Your task to perform on an android device: see creations saved in the google photos Image 0: 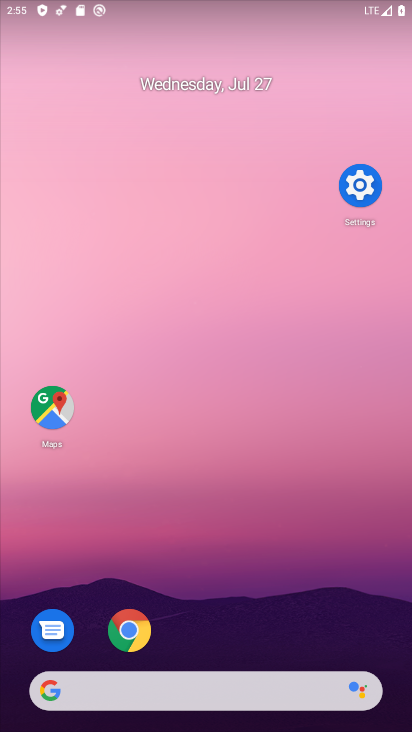
Step 0: drag from (227, 647) to (214, 235)
Your task to perform on an android device: see creations saved in the google photos Image 1: 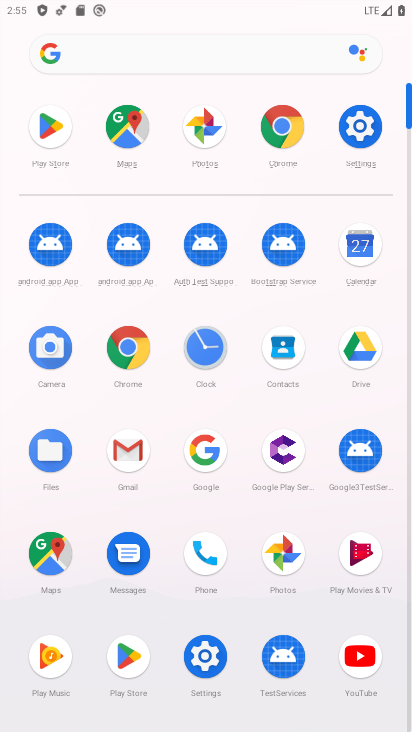
Step 1: click (202, 130)
Your task to perform on an android device: see creations saved in the google photos Image 2: 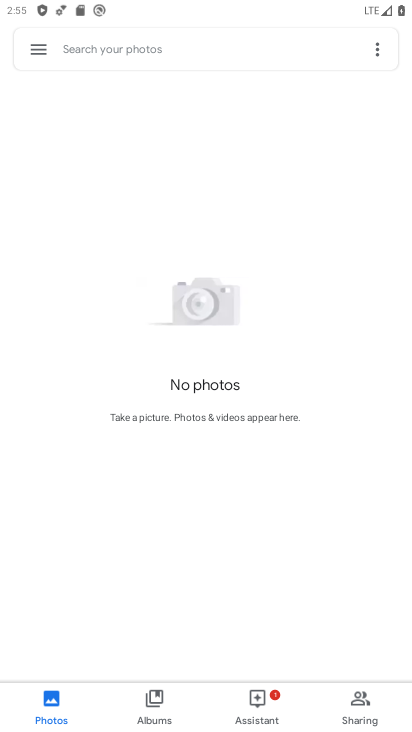
Step 2: click (181, 42)
Your task to perform on an android device: see creations saved in the google photos Image 3: 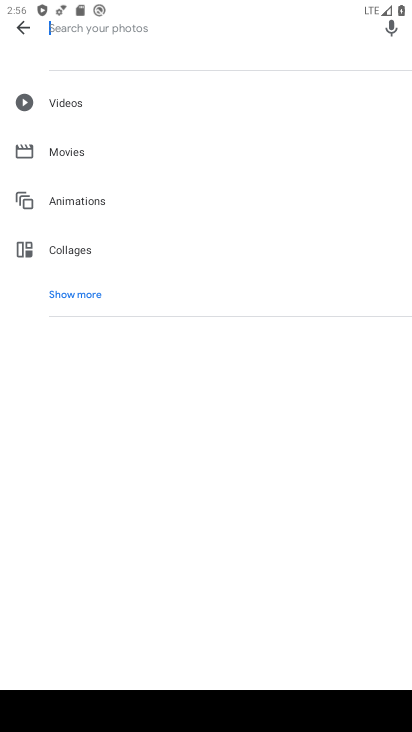
Step 3: click (73, 292)
Your task to perform on an android device: see creations saved in the google photos Image 4: 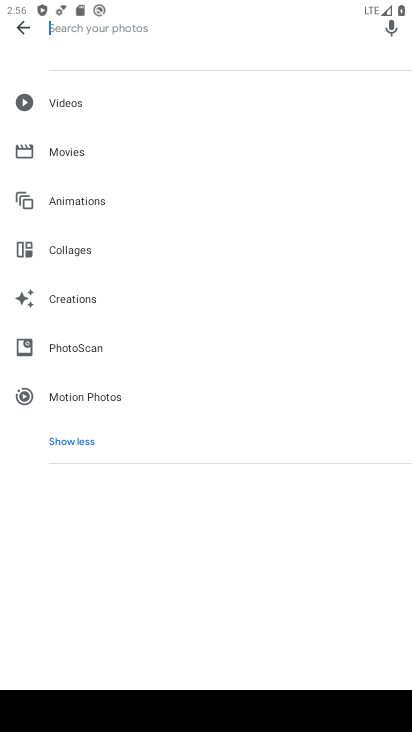
Step 4: click (75, 298)
Your task to perform on an android device: see creations saved in the google photos Image 5: 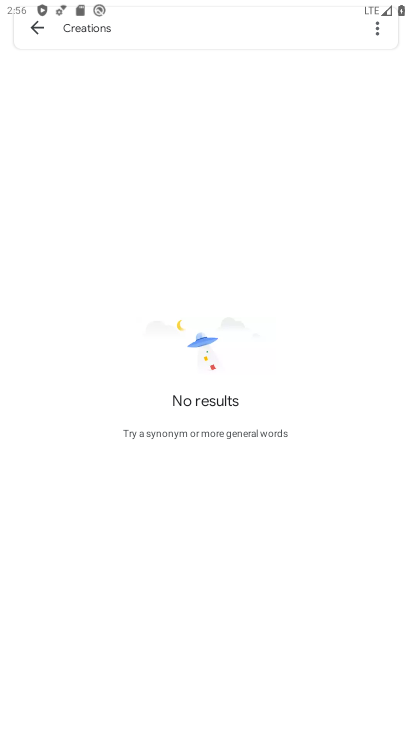
Step 5: task complete